Your task to perform on an android device: turn off priority inbox in the gmail app Image 0: 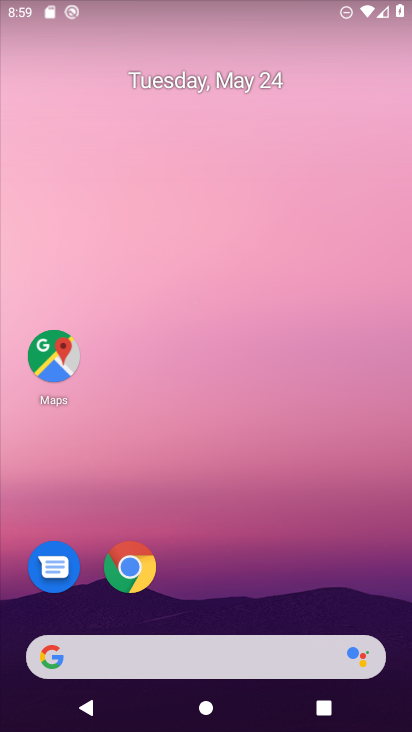
Step 0: press home button
Your task to perform on an android device: turn off priority inbox in the gmail app Image 1: 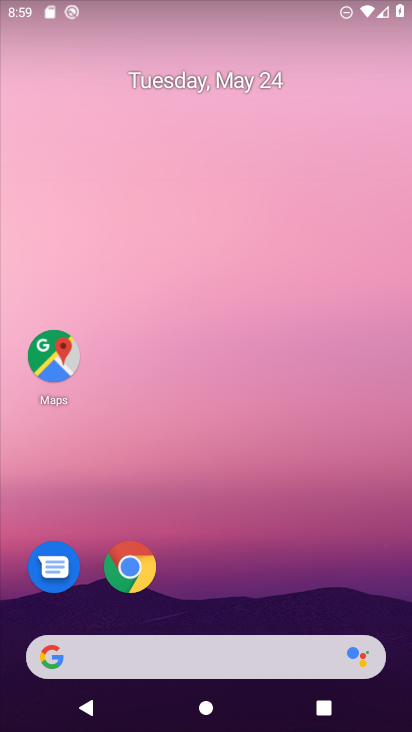
Step 1: drag from (141, 656) to (287, 177)
Your task to perform on an android device: turn off priority inbox in the gmail app Image 2: 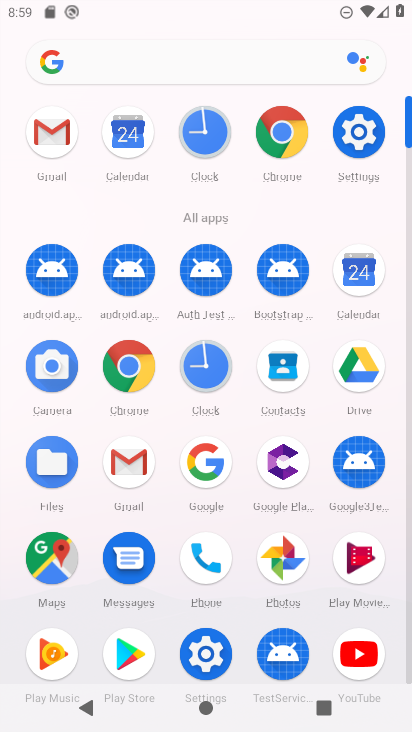
Step 2: click (59, 141)
Your task to perform on an android device: turn off priority inbox in the gmail app Image 3: 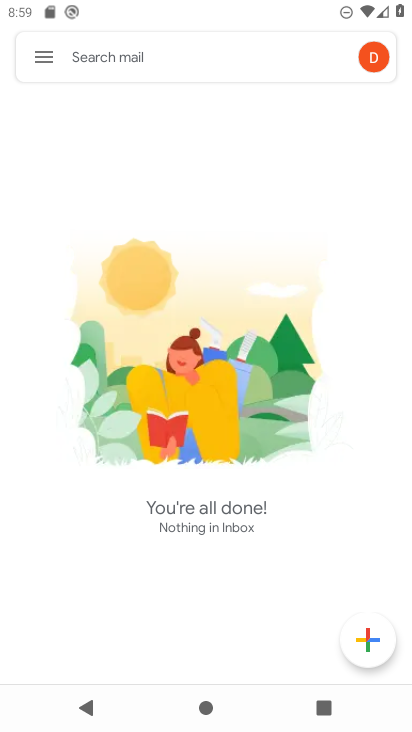
Step 3: click (44, 58)
Your task to perform on an android device: turn off priority inbox in the gmail app Image 4: 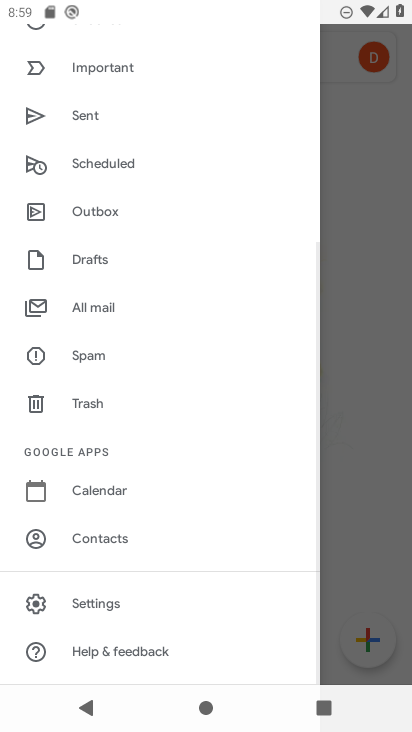
Step 4: click (98, 604)
Your task to perform on an android device: turn off priority inbox in the gmail app Image 5: 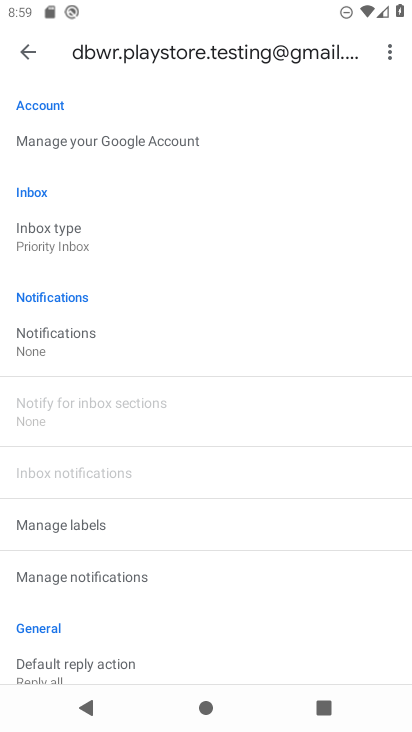
Step 5: click (61, 227)
Your task to perform on an android device: turn off priority inbox in the gmail app Image 6: 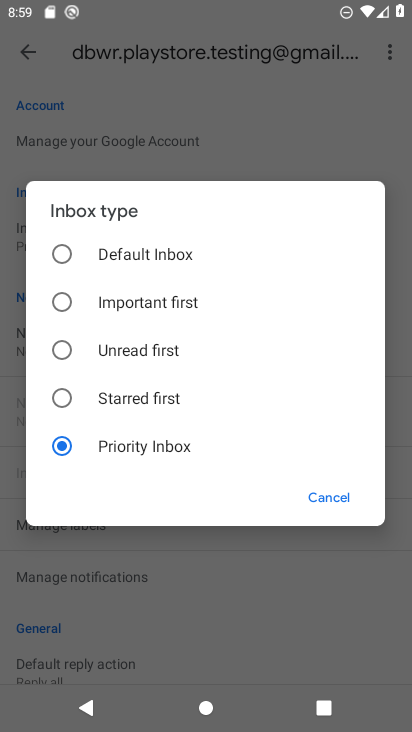
Step 6: click (57, 251)
Your task to perform on an android device: turn off priority inbox in the gmail app Image 7: 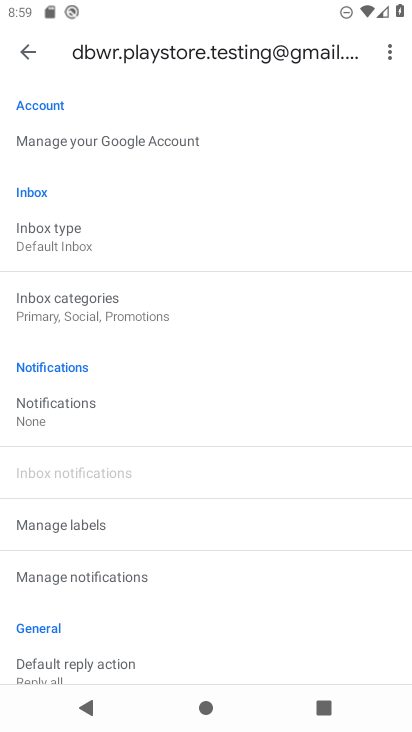
Step 7: task complete